Your task to perform on an android device: Search for sushi restaurants on Maps Image 0: 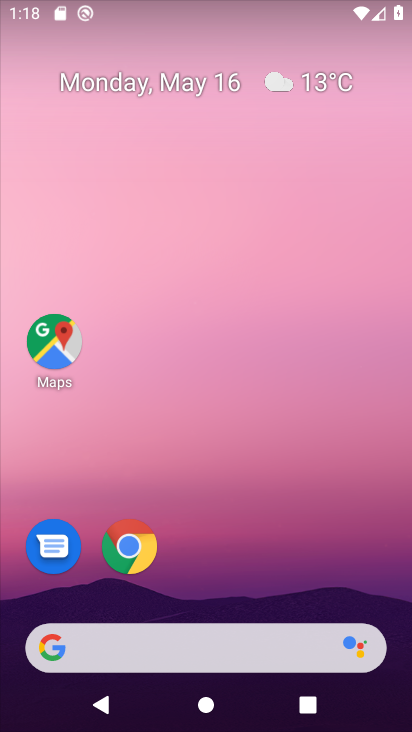
Step 0: drag from (243, 717) to (237, 91)
Your task to perform on an android device: Search for sushi restaurants on Maps Image 1: 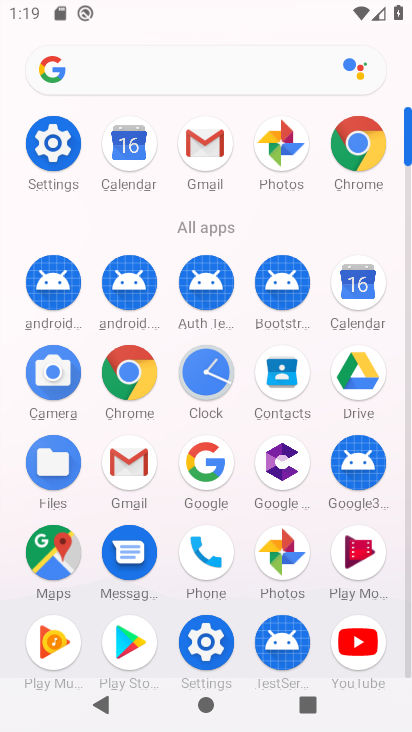
Step 1: click (58, 555)
Your task to perform on an android device: Search for sushi restaurants on Maps Image 2: 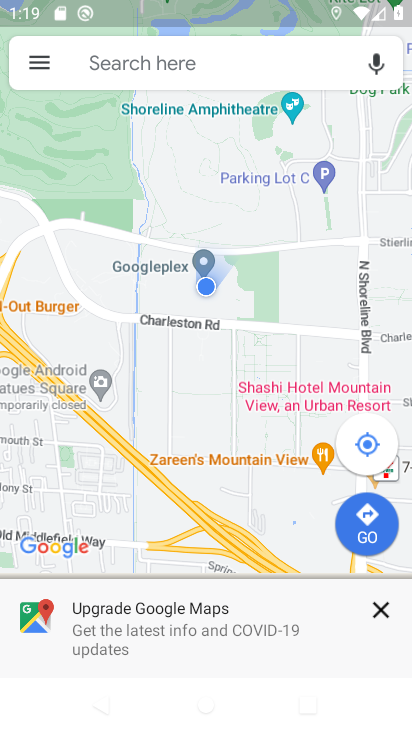
Step 2: click (171, 61)
Your task to perform on an android device: Search for sushi restaurants on Maps Image 3: 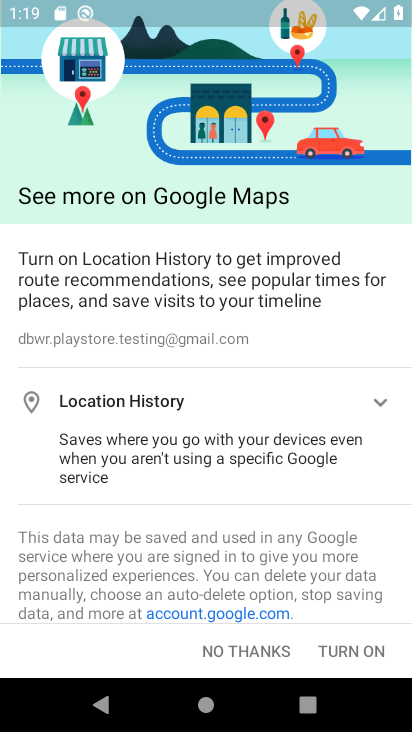
Step 3: type "sushi restaurants"
Your task to perform on an android device: Search for sushi restaurants on Maps Image 4: 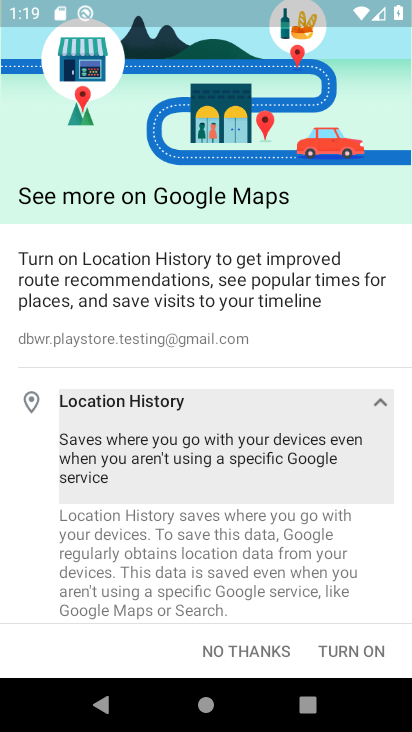
Step 4: click (236, 649)
Your task to perform on an android device: Search for sushi restaurants on Maps Image 5: 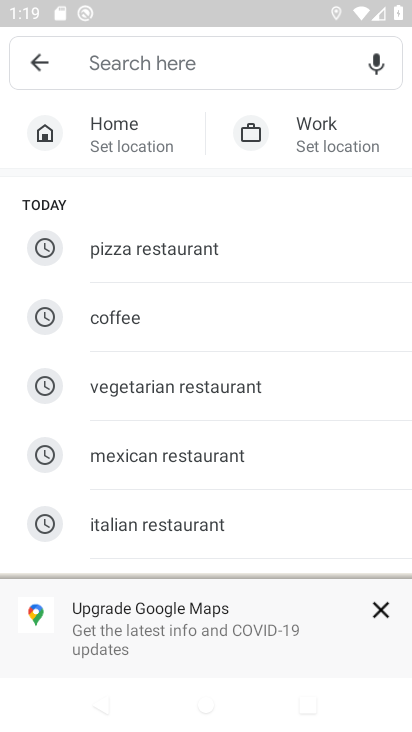
Step 5: click (180, 61)
Your task to perform on an android device: Search for sushi restaurants on Maps Image 6: 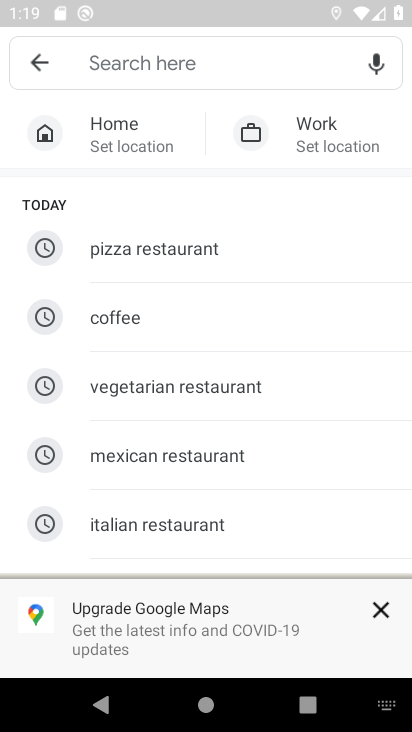
Step 6: type "sushi restaurnts"
Your task to perform on an android device: Search for sushi restaurants on Maps Image 7: 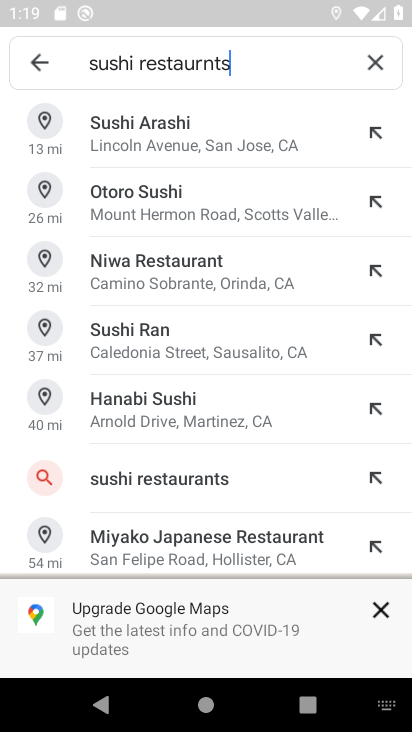
Step 7: click (190, 480)
Your task to perform on an android device: Search for sushi restaurants on Maps Image 8: 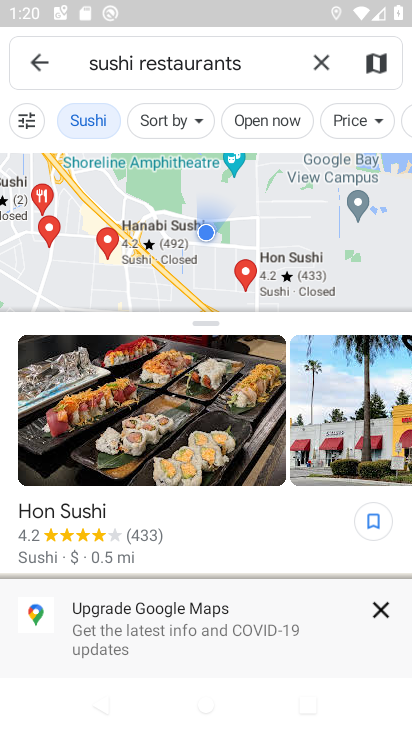
Step 8: task complete